Your task to perform on an android device: toggle pop-ups in chrome Image 0: 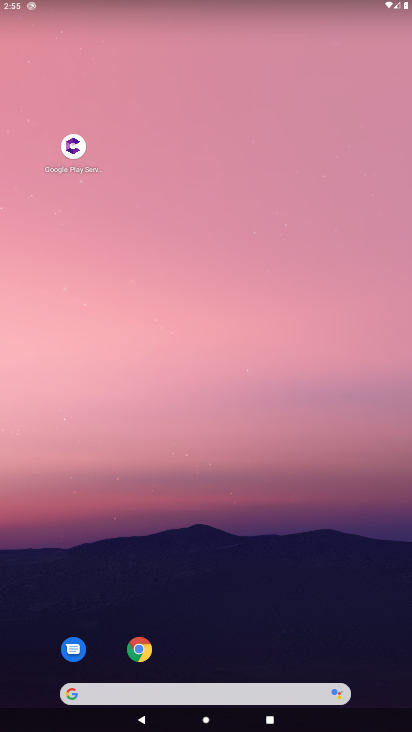
Step 0: click (138, 658)
Your task to perform on an android device: toggle pop-ups in chrome Image 1: 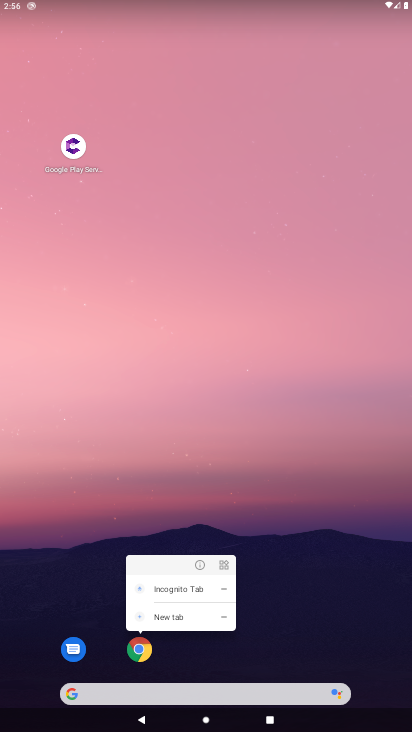
Step 1: click (146, 627)
Your task to perform on an android device: toggle pop-ups in chrome Image 2: 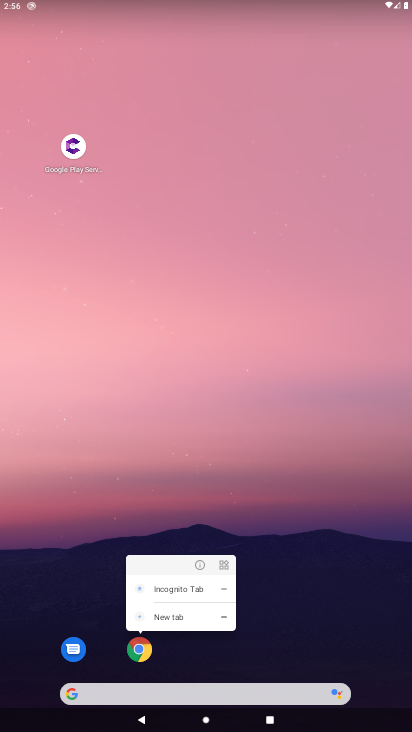
Step 2: click (142, 645)
Your task to perform on an android device: toggle pop-ups in chrome Image 3: 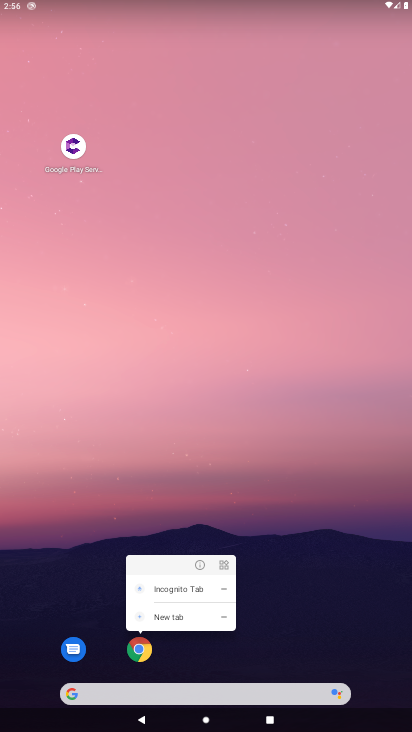
Step 3: click (140, 643)
Your task to perform on an android device: toggle pop-ups in chrome Image 4: 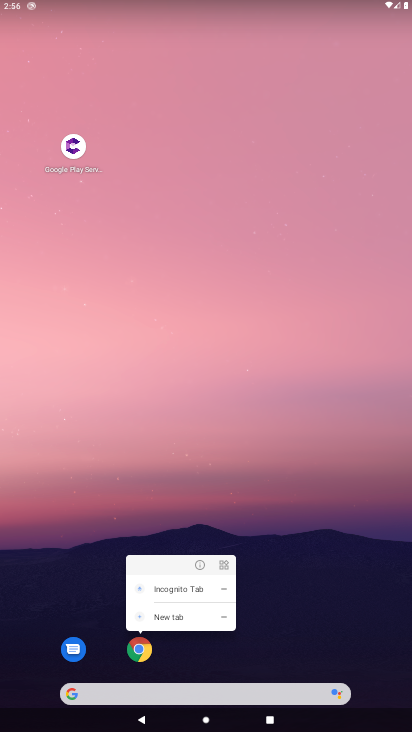
Step 4: click (142, 646)
Your task to perform on an android device: toggle pop-ups in chrome Image 5: 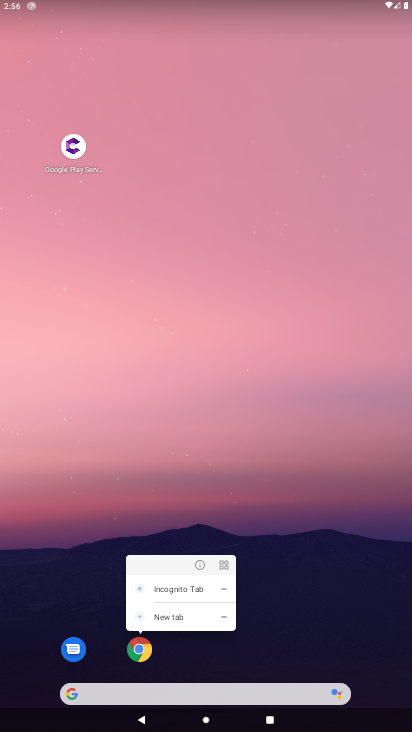
Step 5: task complete